Your task to perform on an android device: Open CNN.com Image 0: 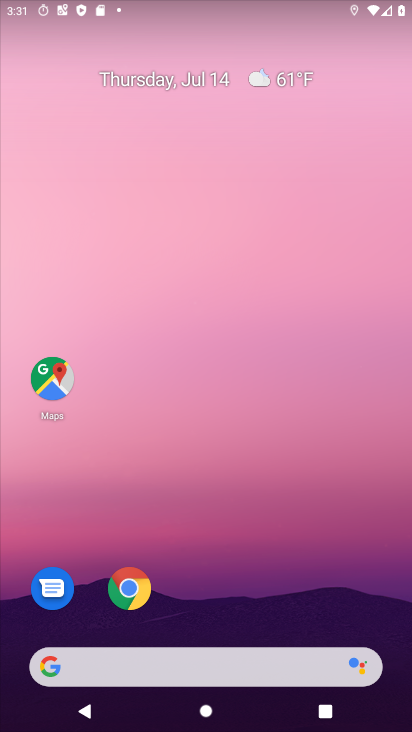
Step 0: click (129, 588)
Your task to perform on an android device: Open CNN.com Image 1: 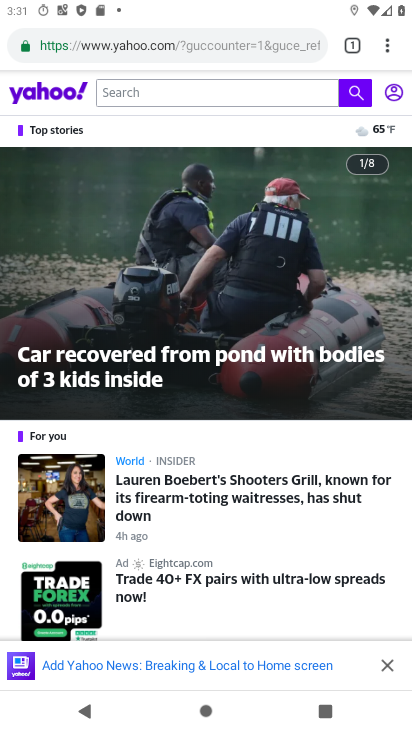
Step 1: click (251, 45)
Your task to perform on an android device: Open CNN.com Image 2: 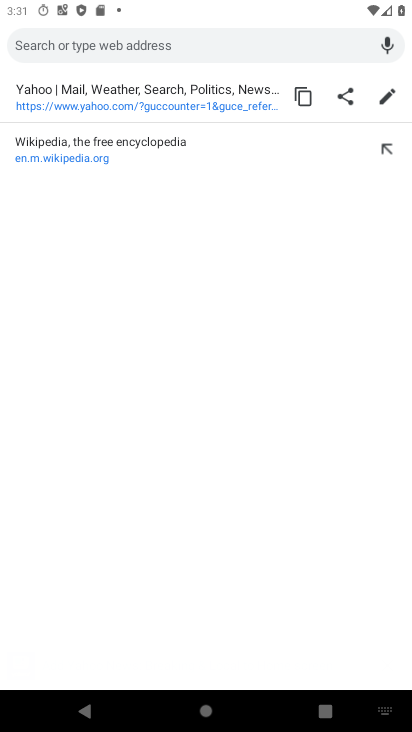
Step 2: type "CNN.com"
Your task to perform on an android device: Open CNN.com Image 3: 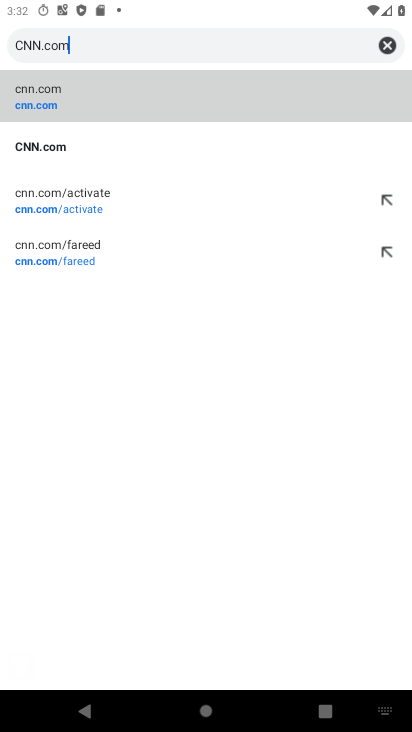
Step 3: click (60, 144)
Your task to perform on an android device: Open CNN.com Image 4: 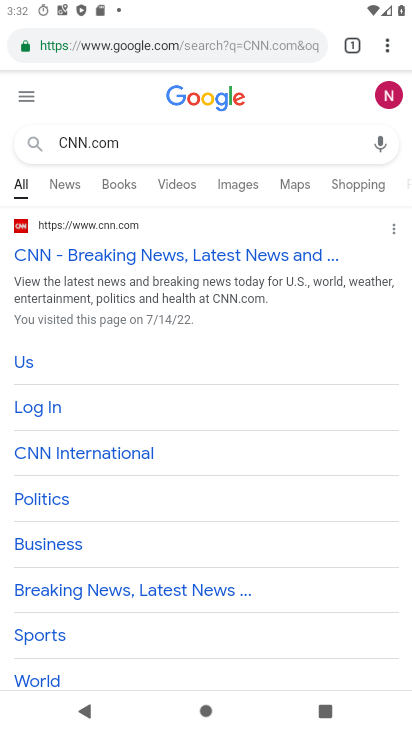
Step 4: click (67, 252)
Your task to perform on an android device: Open CNN.com Image 5: 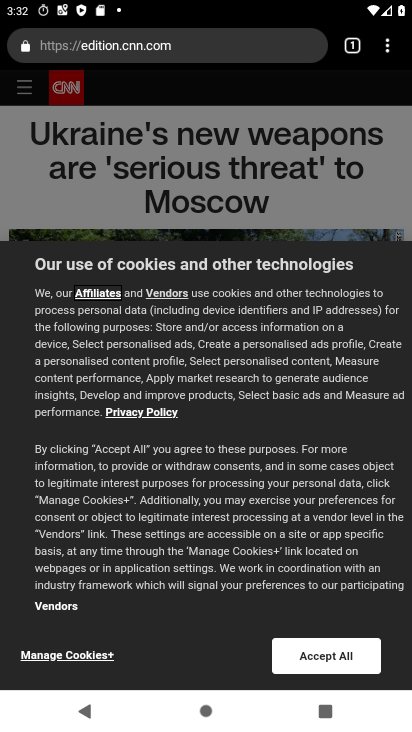
Step 5: click (337, 652)
Your task to perform on an android device: Open CNN.com Image 6: 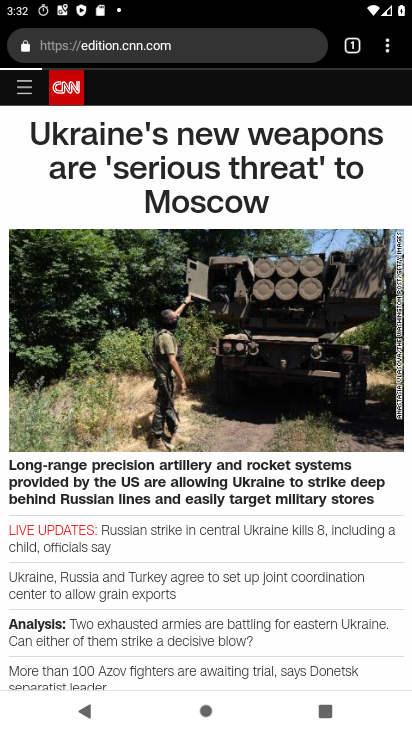
Step 6: task complete